Your task to perform on an android device: Go to sound settings Image 0: 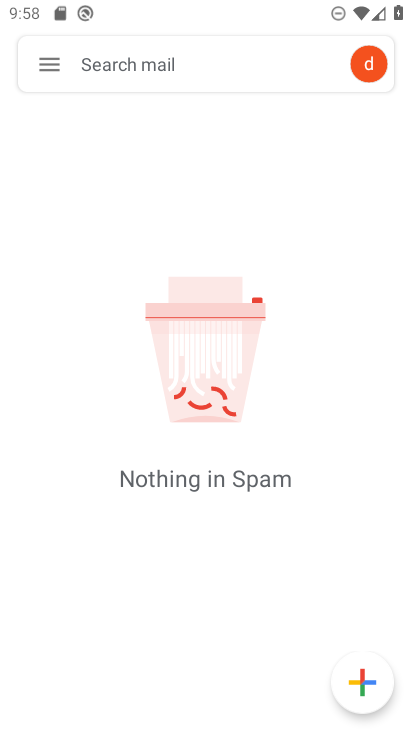
Step 0: press home button
Your task to perform on an android device: Go to sound settings Image 1: 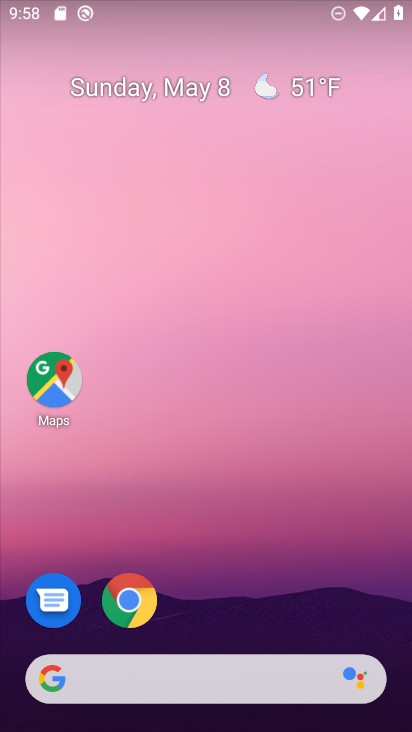
Step 1: drag from (281, 617) to (274, 11)
Your task to perform on an android device: Go to sound settings Image 2: 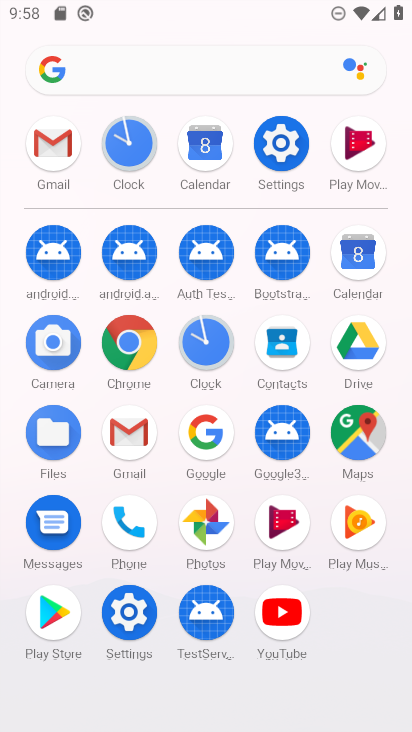
Step 2: click (283, 144)
Your task to perform on an android device: Go to sound settings Image 3: 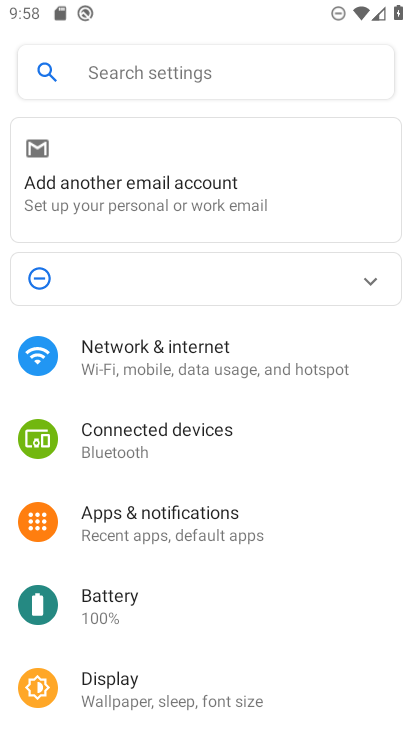
Step 3: drag from (306, 610) to (282, 146)
Your task to perform on an android device: Go to sound settings Image 4: 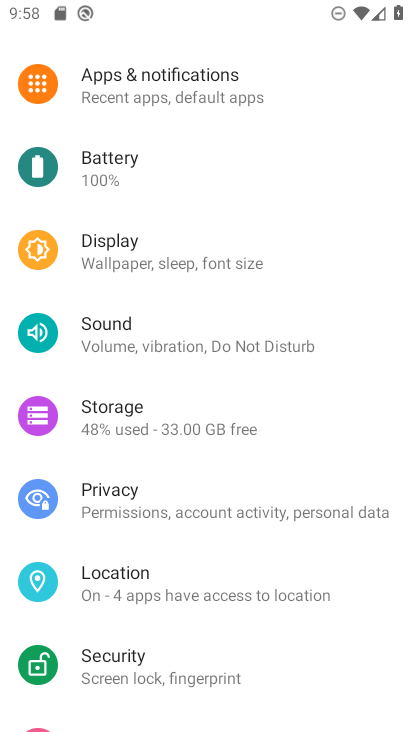
Step 4: click (106, 341)
Your task to perform on an android device: Go to sound settings Image 5: 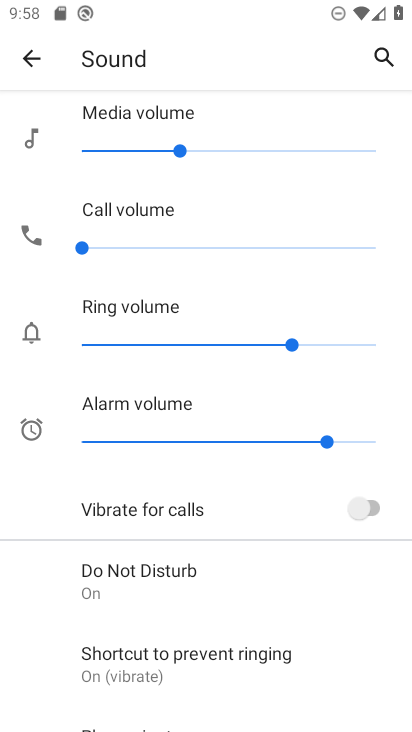
Step 5: task complete